Your task to perform on an android device: check android version Image 0: 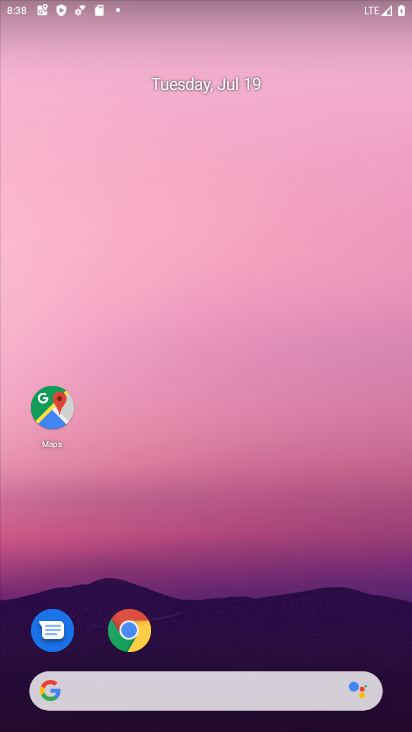
Step 0: drag from (217, 673) to (392, 178)
Your task to perform on an android device: check android version Image 1: 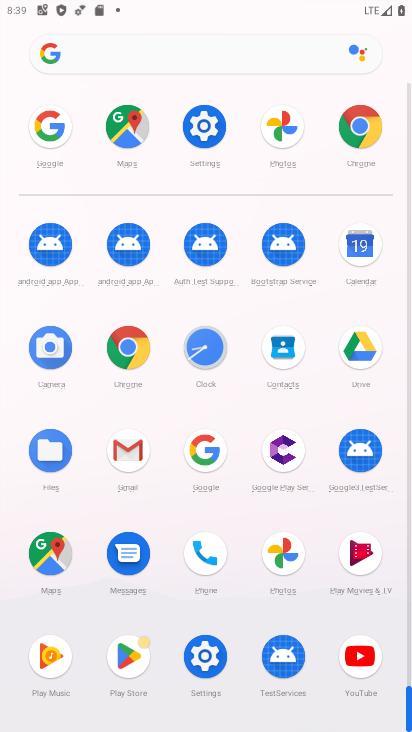
Step 1: click (207, 139)
Your task to perform on an android device: check android version Image 2: 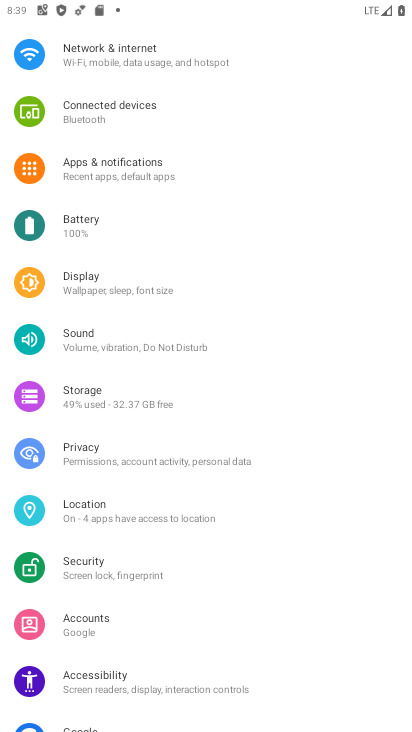
Step 2: drag from (160, 516) to (371, 33)
Your task to perform on an android device: check android version Image 3: 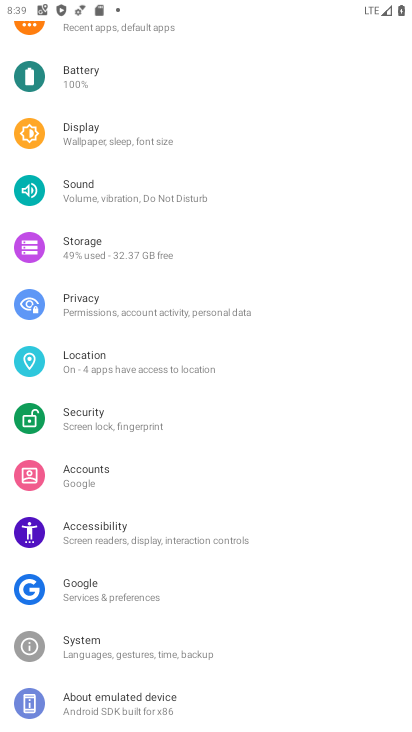
Step 3: click (121, 699)
Your task to perform on an android device: check android version Image 4: 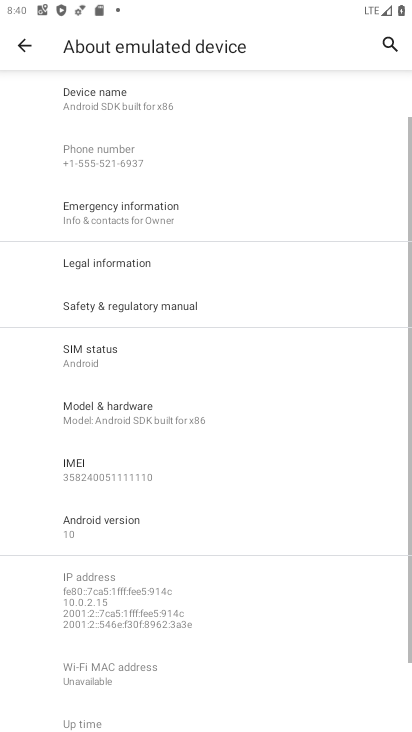
Step 4: click (173, 532)
Your task to perform on an android device: check android version Image 5: 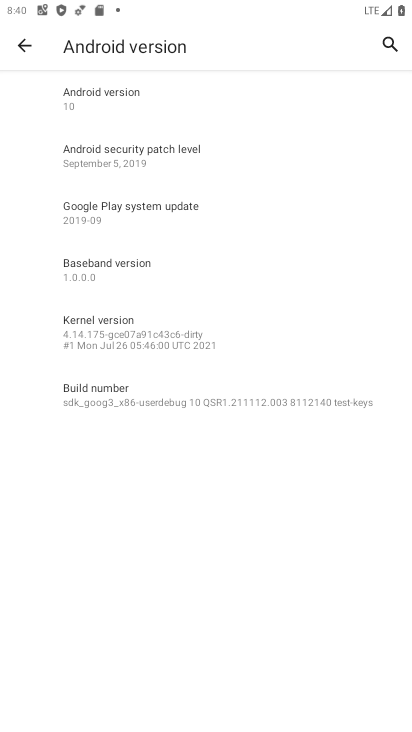
Step 5: task complete